Your task to perform on an android device: toggle notifications settings in the gmail app Image 0: 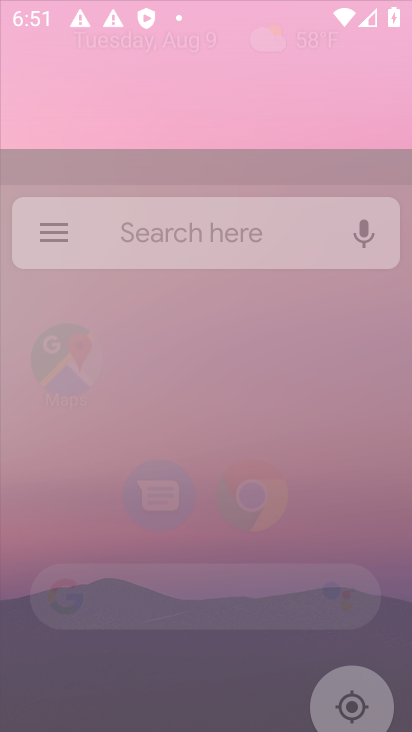
Step 0: press home button
Your task to perform on an android device: toggle notifications settings in the gmail app Image 1: 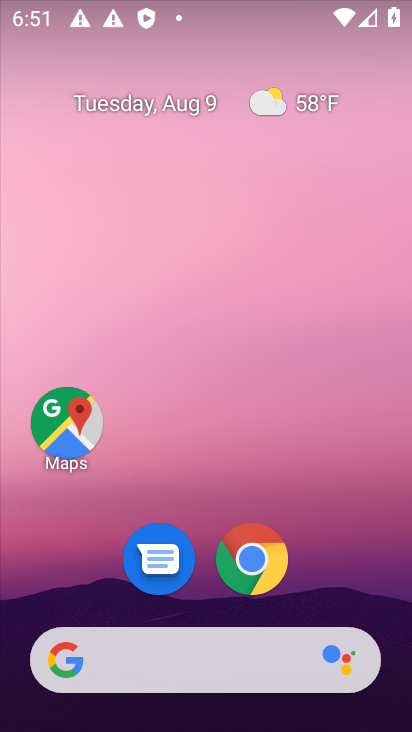
Step 1: press home button
Your task to perform on an android device: toggle notifications settings in the gmail app Image 2: 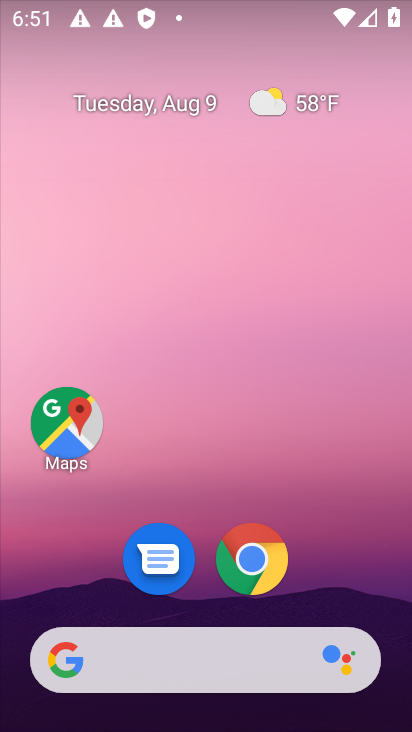
Step 2: drag from (199, 443) to (206, 188)
Your task to perform on an android device: toggle notifications settings in the gmail app Image 3: 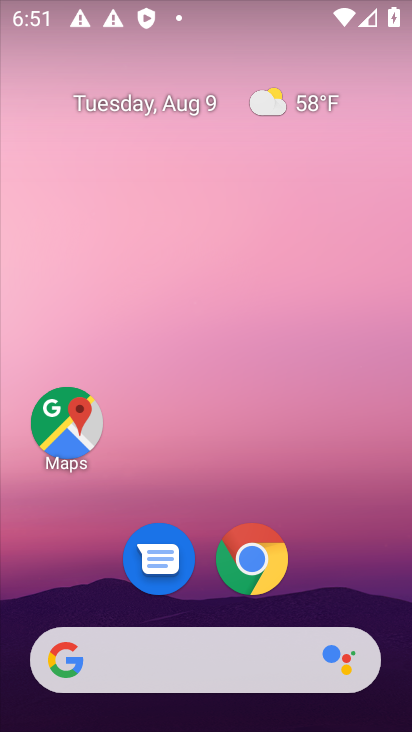
Step 3: drag from (208, 458) to (192, 7)
Your task to perform on an android device: toggle notifications settings in the gmail app Image 4: 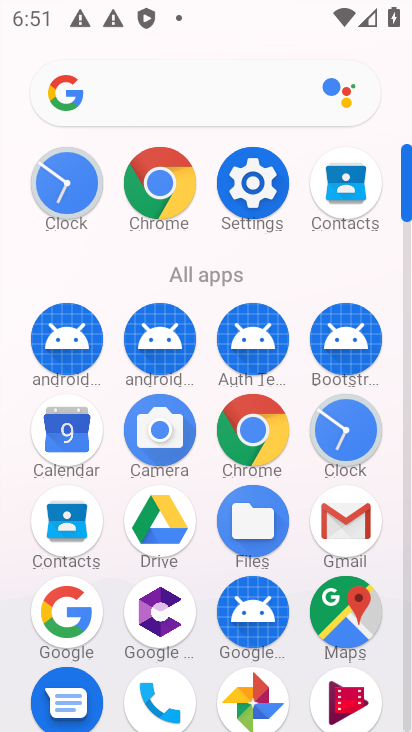
Step 4: click (347, 515)
Your task to perform on an android device: toggle notifications settings in the gmail app Image 5: 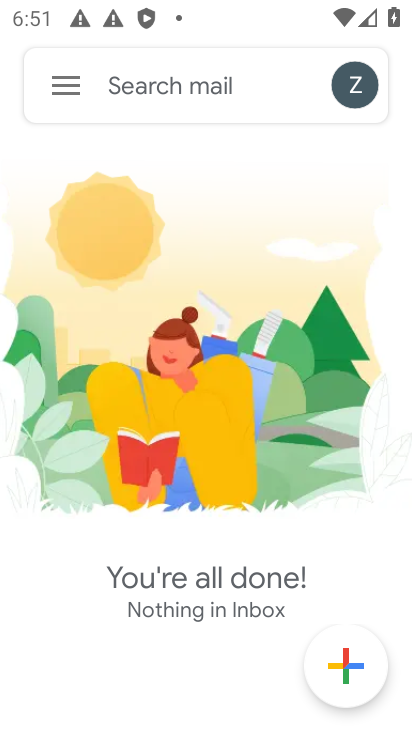
Step 5: click (59, 86)
Your task to perform on an android device: toggle notifications settings in the gmail app Image 6: 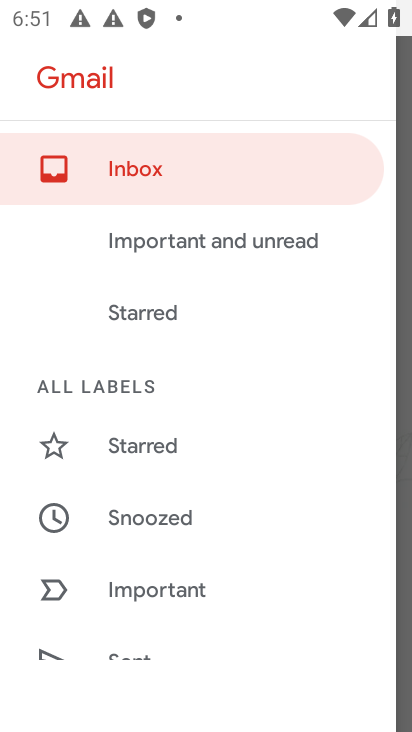
Step 6: drag from (173, 605) to (144, 262)
Your task to perform on an android device: toggle notifications settings in the gmail app Image 7: 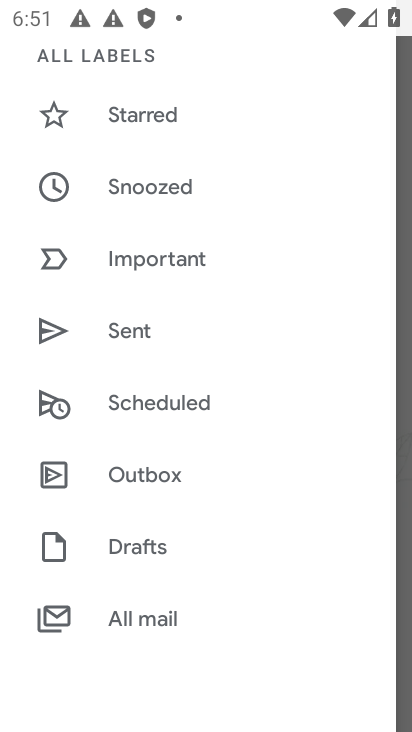
Step 7: drag from (171, 492) to (181, 256)
Your task to perform on an android device: toggle notifications settings in the gmail app Image 8: 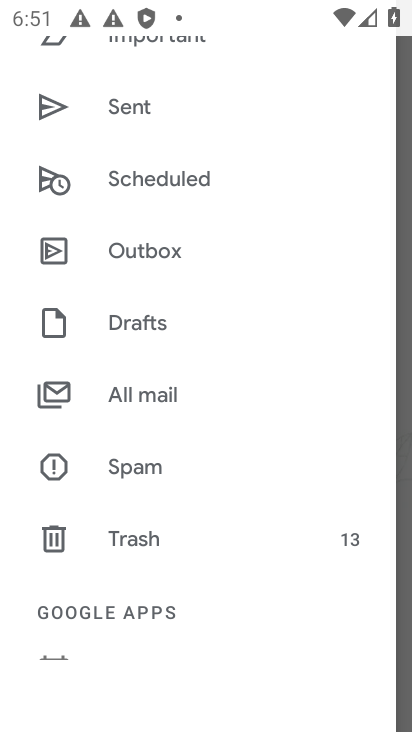
Step 8: drag from (191, 556) to (191, 114)
Your task to perform on an android device: toggle notifications settings in the gmail app Image 9: 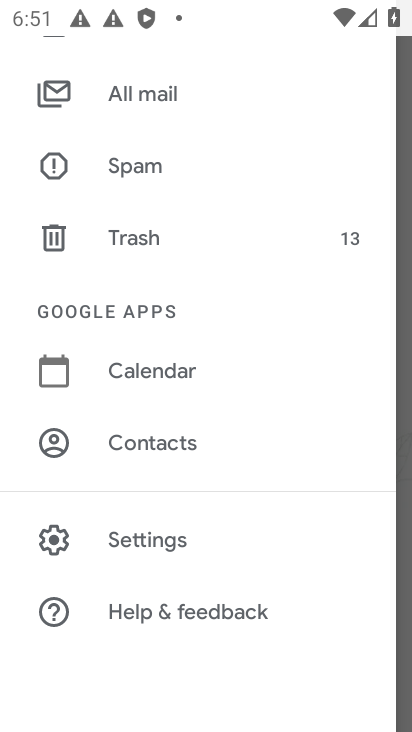
Step 9: drag from (252, 485) to (248, 168)
Your task to perform on an android device: toggle notifications settings in the gmail app Image 10: 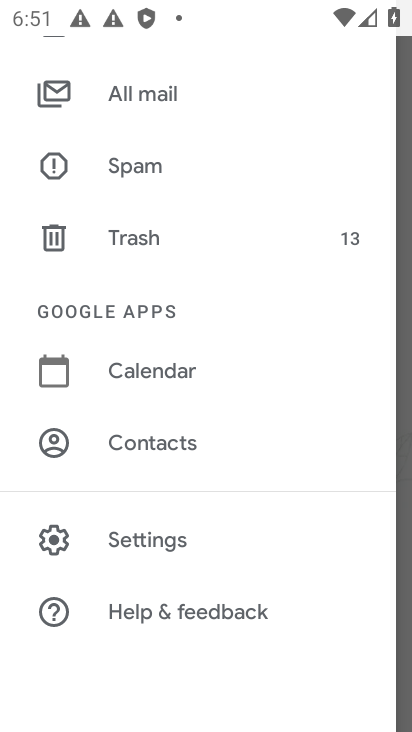
Step 10: click (139, 538)
Your task to perform on an android device: toggle notifications settings in the gmail app Image 11: 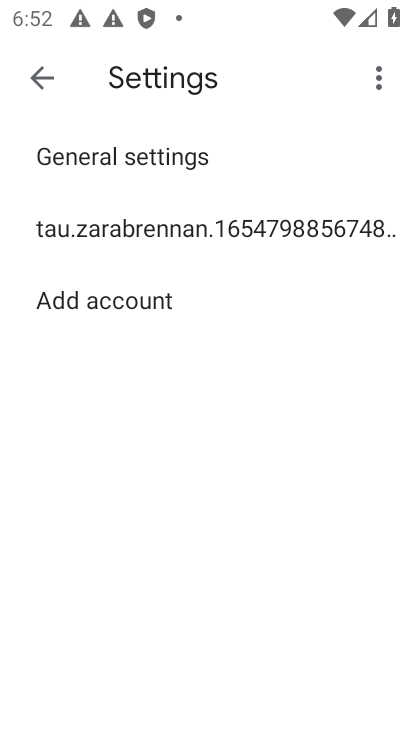
Step 11: click (210, 228)
Your task to perform on an android device: toggle notifications settings in the gmail app Image 12: 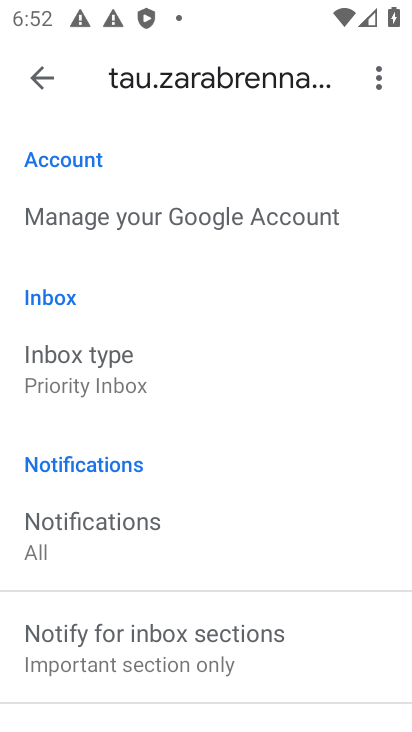
Step 12: click (119, 560)
Your task to perform on an android device: toggle notifications settings in the gmail app Image 13: 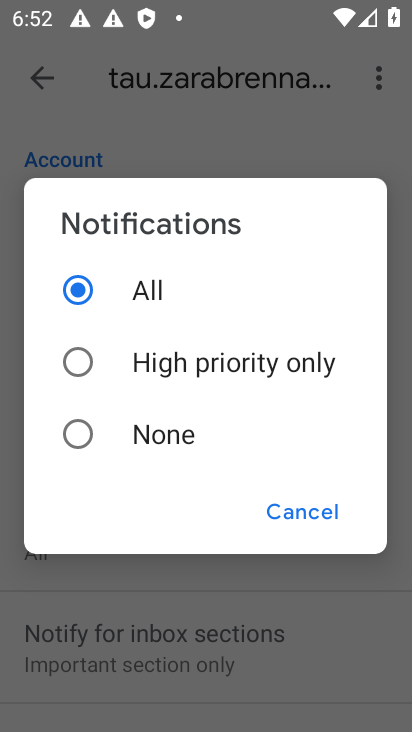
Step 13: click (71, 430)
Your task to perform on an android device: toggle notifications settings in the gmail app Image 14: 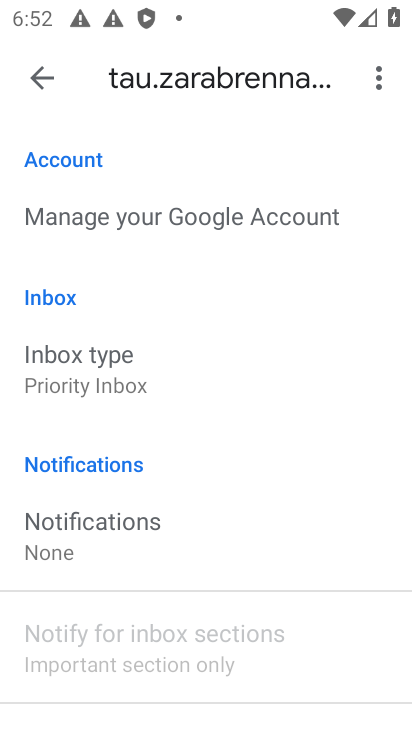
Step 14: task complete